Your task to perform on an android device: turn on showing notifications on the lock screen Image 0: 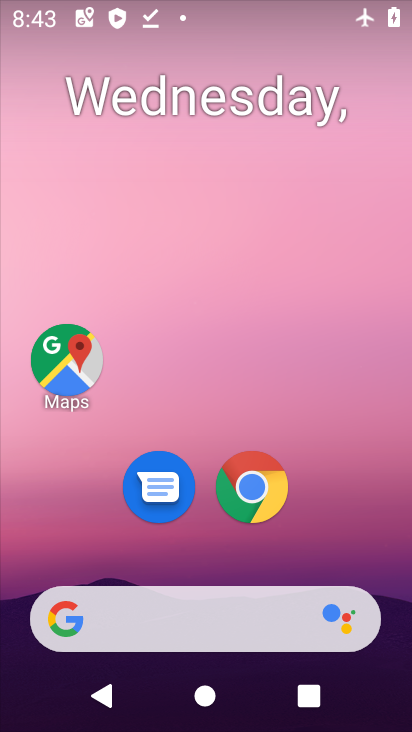
Step 0: drag from (254, 684) to (303, 70)
Your task to perform on an android device: turn on showing notifications on the lock screen Image 1: 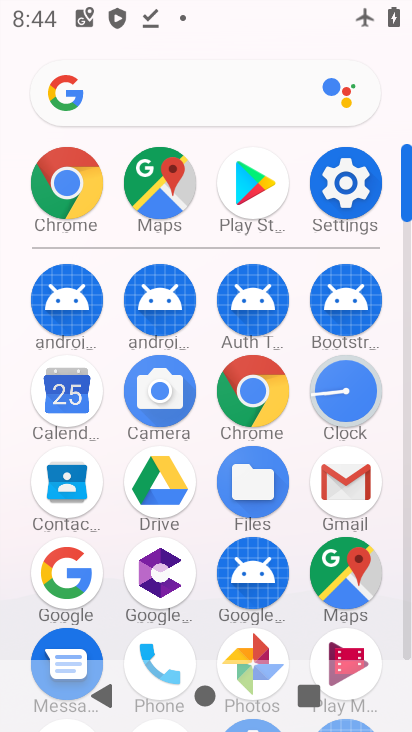
Step 1: click (338, 200)
Your task to perform on an android device: turn on showing notifications on the lock screen Image 2: 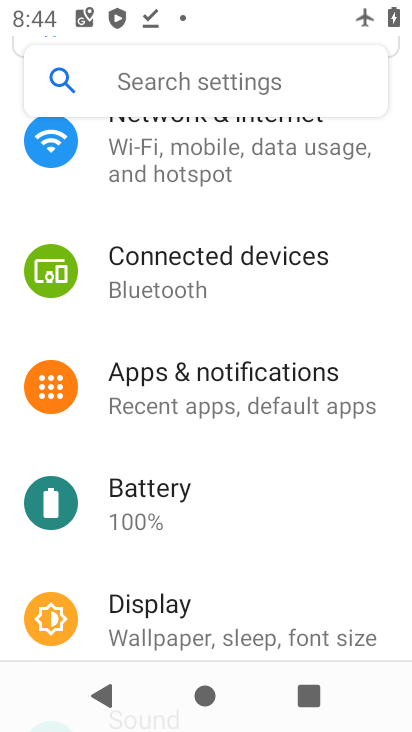
Step 2: click (338, 200)
Your task to perform on an android device: turn on showing notifications on the lock screen Image 3: 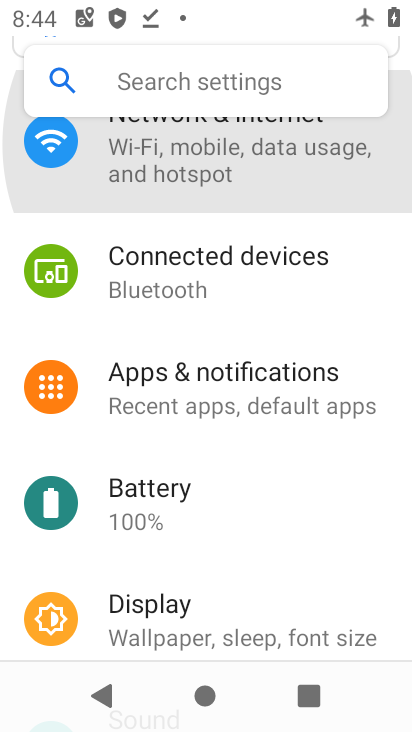
Step 3: click (340, 187)
Your task to perform on an android device: turn on showing notifications on the lock screen Image 4: 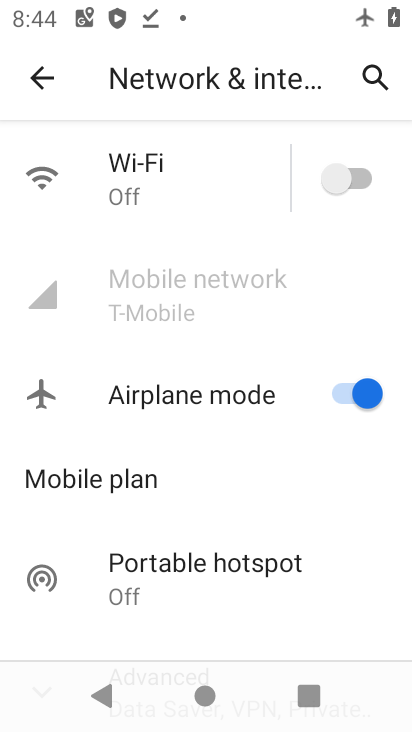
Step 4: click (38, 74)
Your task to perform on an android device: turn on showing notifications on the lock screen Image 5: 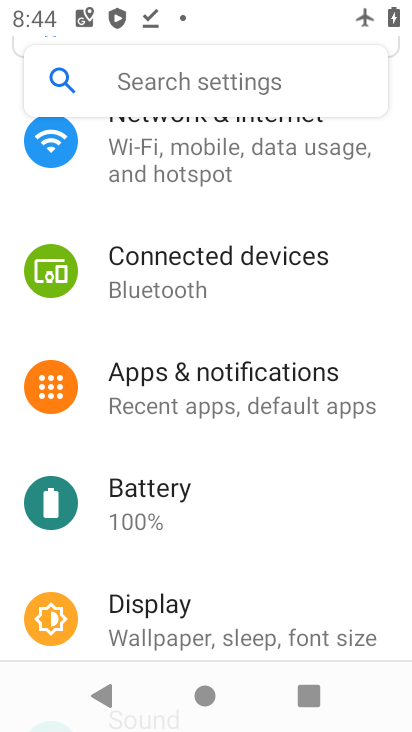
Step 5: drag from (239, 566) to (187, 263)
Your task to perform on an android device: turn on showing notifications on the lock screen Image 6: 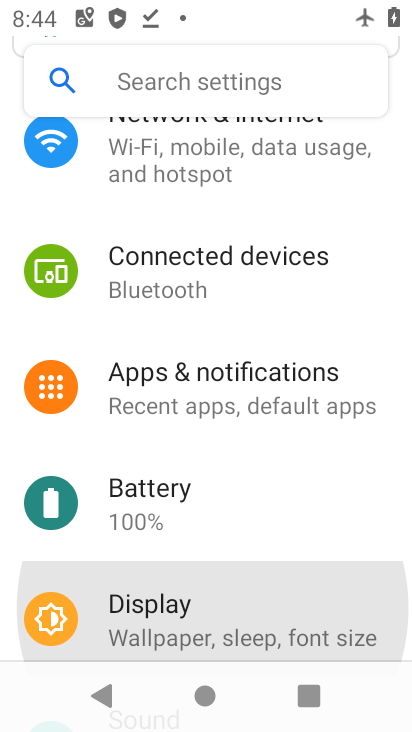
Step 6: drag from (255, 631) to (249, 248)
Your task to perform on an android device: turn on showing notifications on the lock screen Image 7: 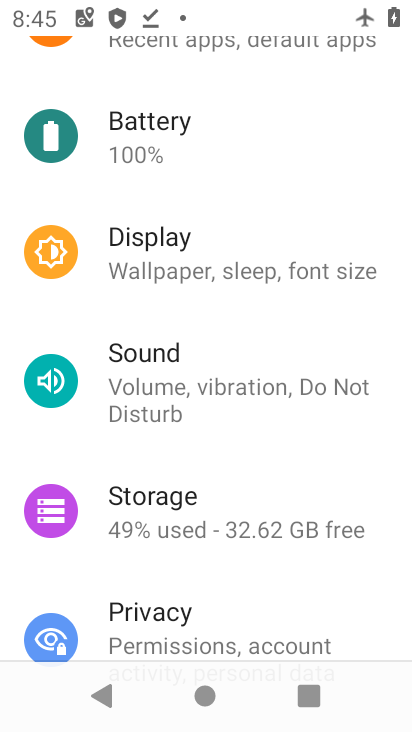
Step 7: drag from (210, 239) to (216, 630)
Your task to perform on an android device: turn on showing notifications on the lock screen Image 8: 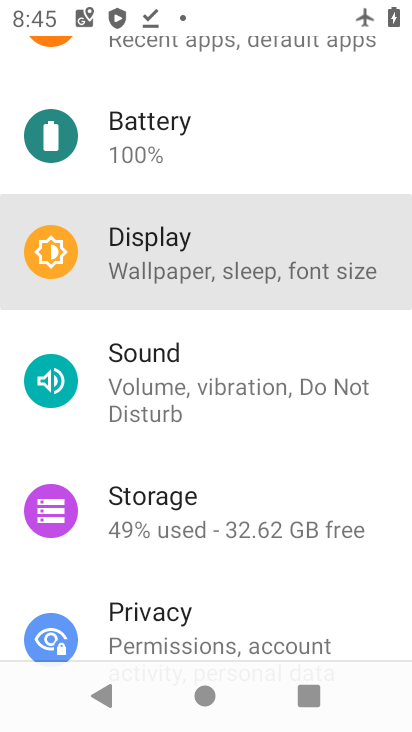
Step 8: drag from (212, 320) to (185, 616)
Your task to perform on an android device: turn on showing notifications on the lock screen Image 9: 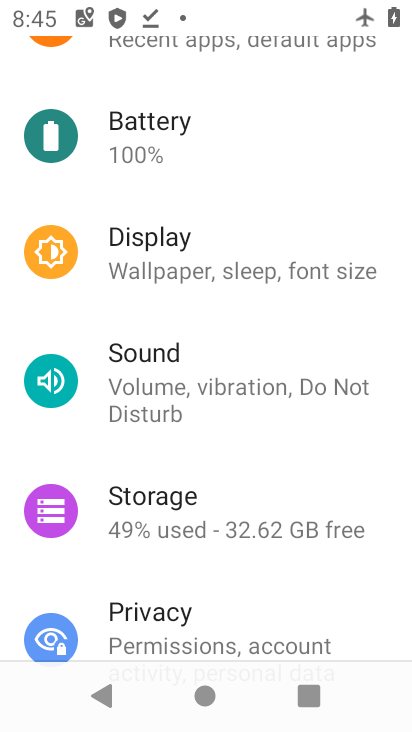
Step 9: drag from (197, 214) to (179, 600)
Your task to perform on an android device: turn on showing notifications on the lock screen Image 10: 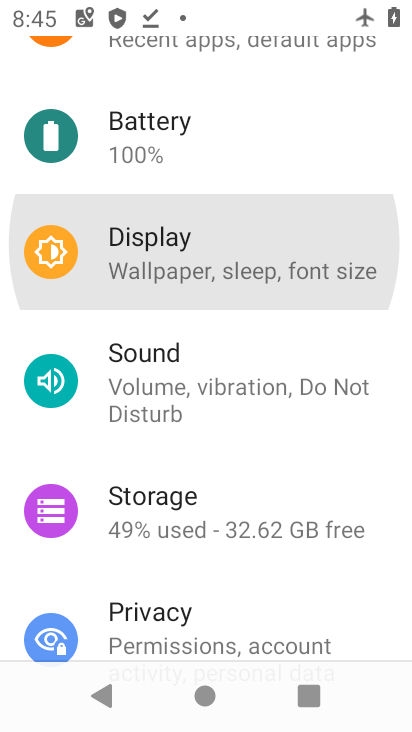
Step 10: drag from (224, 335) to (229, 597)
Your task to perform on an android device: turn on showing notifications on the lock screen Image 11: 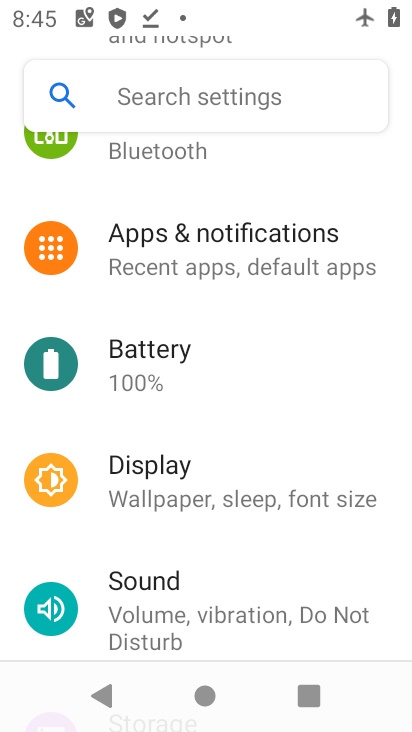
Step 11: drag from (199, 311) to (226, 567)
Your task to perform on an android device: turn on showing notifications on the lock screen Image 12: 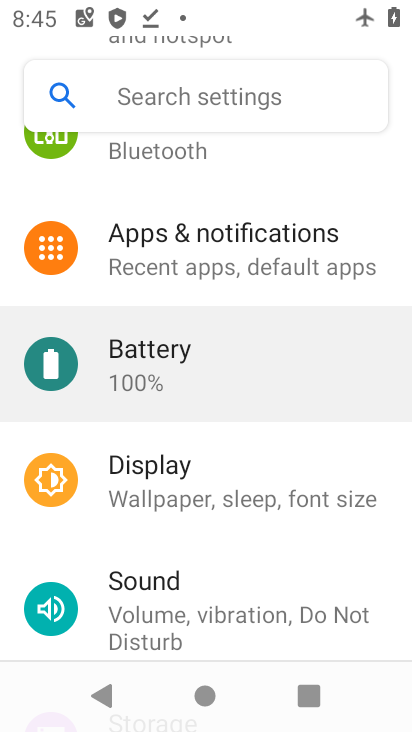
Step 12: drag from (167, 226) to (180, 660)
Your task to perform on an android device: turn on showing notifications on the lock screen Image 13: 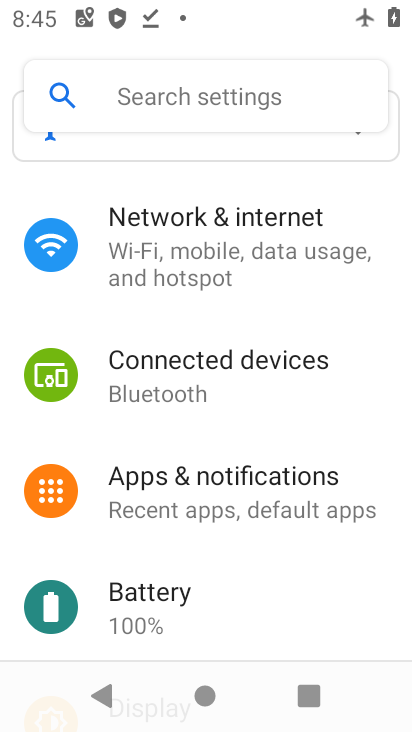
Step 13: click (191, 493)
Your task to perform on an android device: turn on showing notifications on the lock screen Image 14: 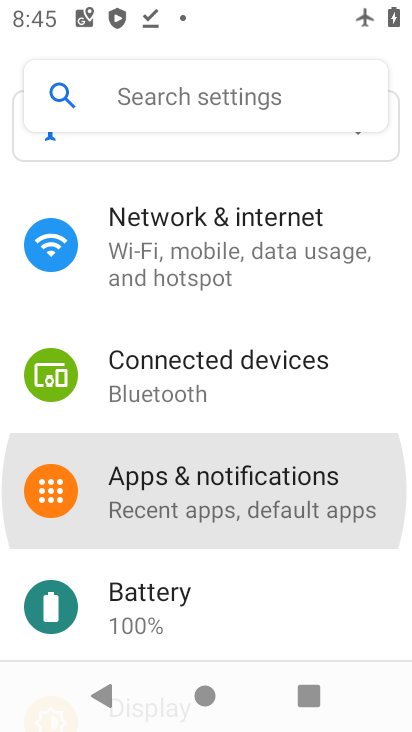
Step 14: click (191, 494)
Your task to perform on an android device: turn on showing notifications on the lock screen Image 15: 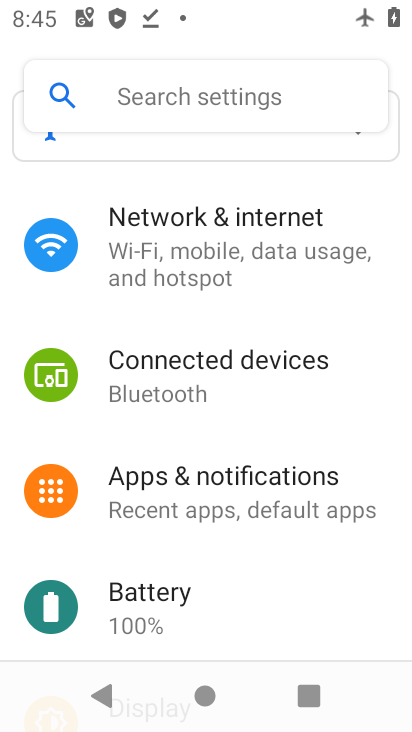
Step 15: click (194, 493)
Your task to perform on an android device: turn on showing notifications on the lock screen Image 16: 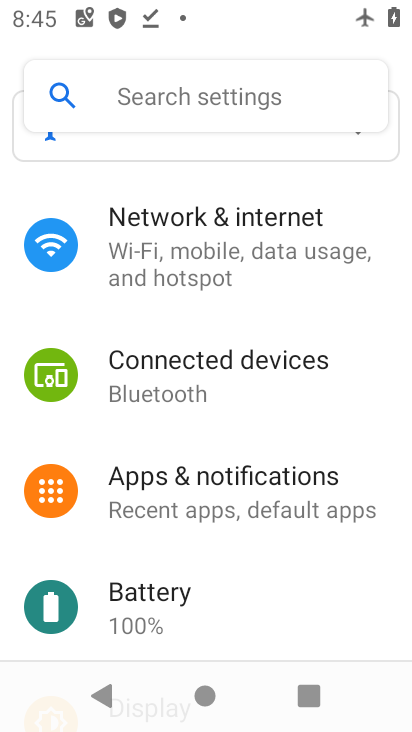
Step 16: click (194, 493)
Your task to perform on an android device: turn on showing notifications on the lock screen Image 17: 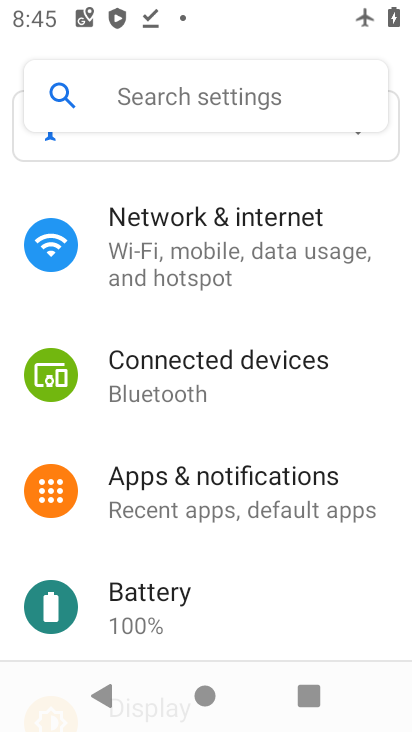
Step 17: click (196, 492)
Your task to perform on an android device: turn on showing notifications on the lock screen Image 18: 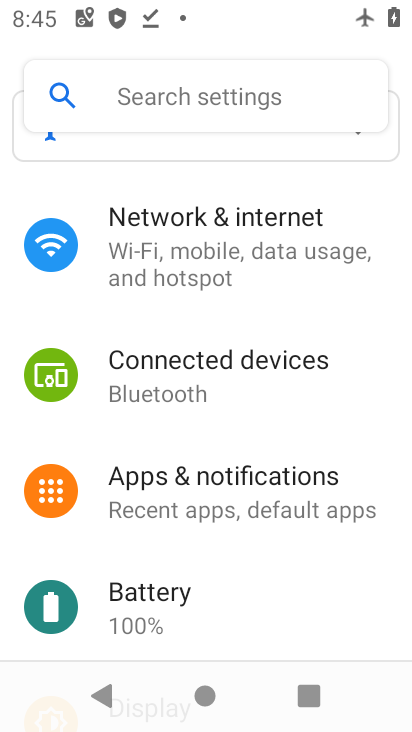
Step 18: click (197, 488)
Your task to perform on an android device: turn on showing notifications on the lock screen Image 19: 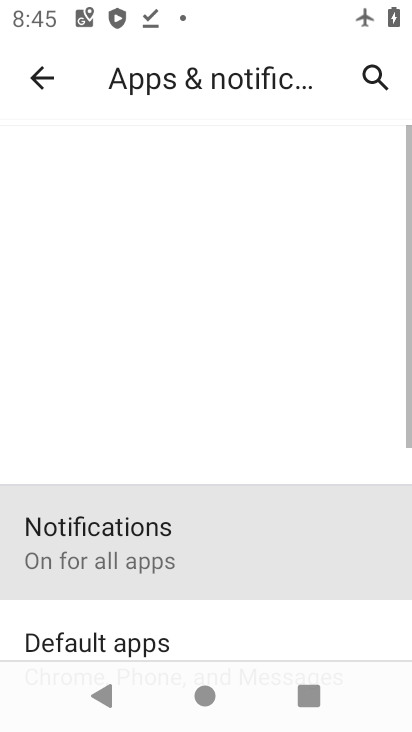
Step 19: click (198, 486)
Your task to perform on an android device: turn on showing notifications on the lock screen Image 20: 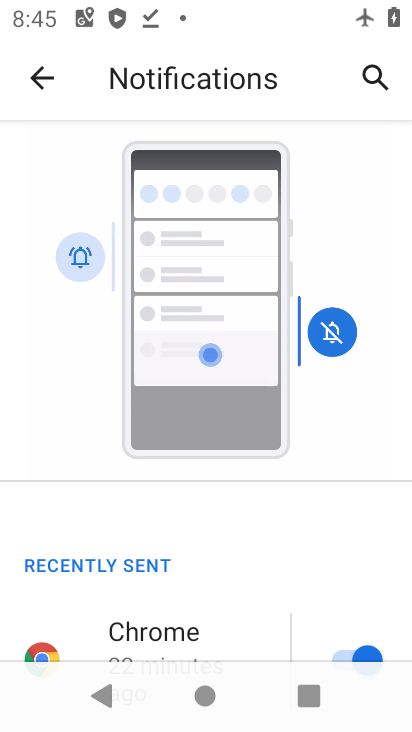
Step 20: drag from (209, 507) to (156, 71)
Your task to perform on an android device: turn on showing notifications on the lock screen Image 21: 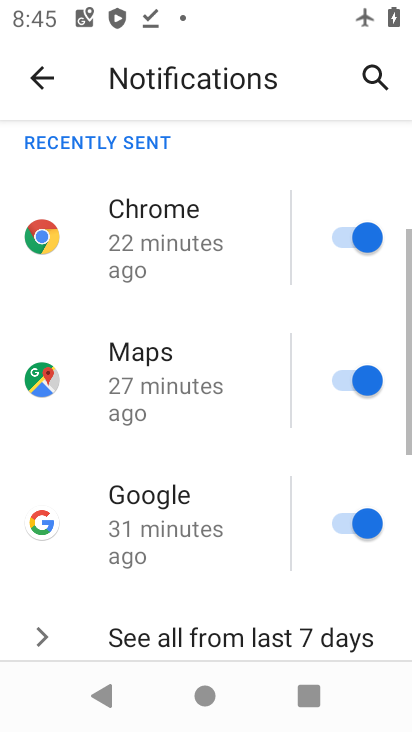
Step 21: drag from (189, 414) to (125, 102)
Your task to perform on an android device: turn on showing notifications on the lock screen Image 22: 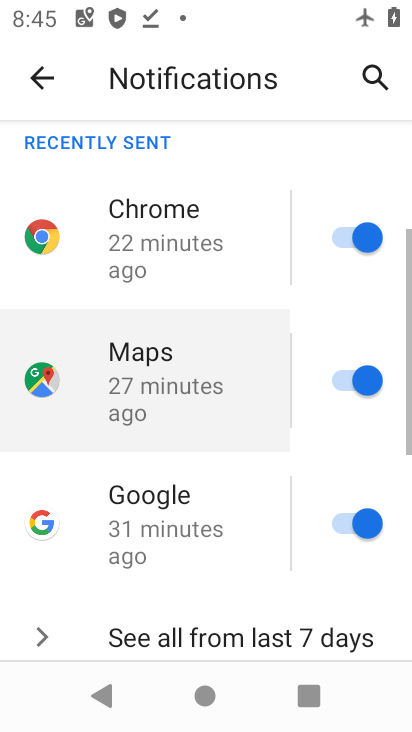
Step 22: drag from (169, 400) to (151, 121)
Your task to perform on an android device: turn on showing notifications on the lock screen Image 23: 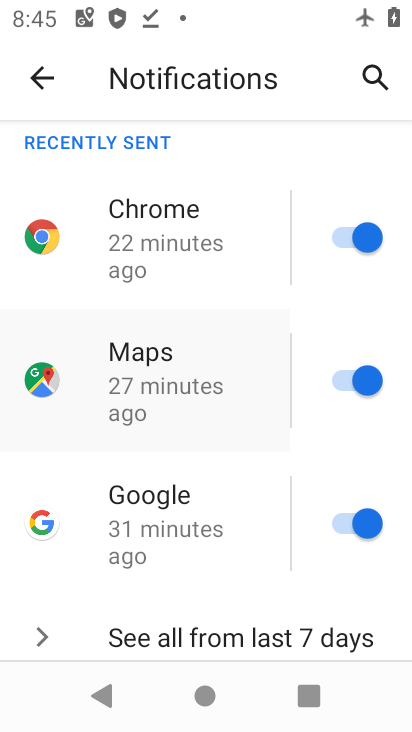
Step 23: drag from (165, 451) to (162, 111)
Your task to perform on an android device: turn on showing notifications on the lock screen Image 24: 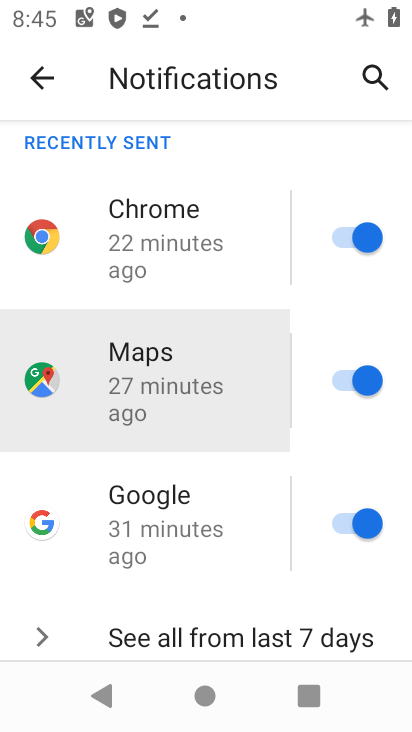
Step 24: drag from (211, 442) to (211, 89)
Your task to perform on an android device: turn on showing notifications on the lock screen Image 25: 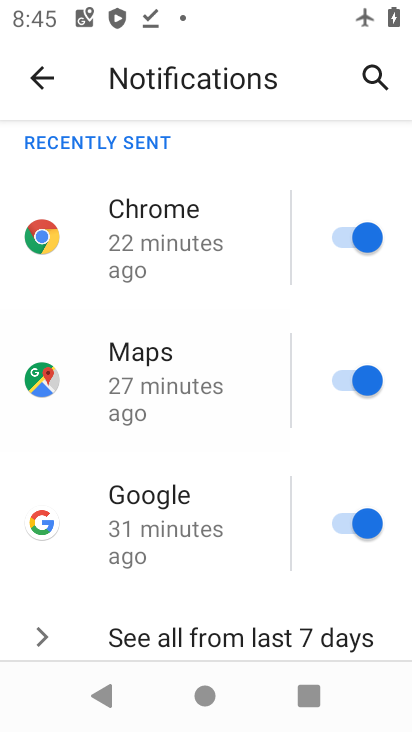
Step 25: drag from (246, 513) to (245, 115)
Your task to perform on an android device: turn on showing notifications on the lock screen Image 26: 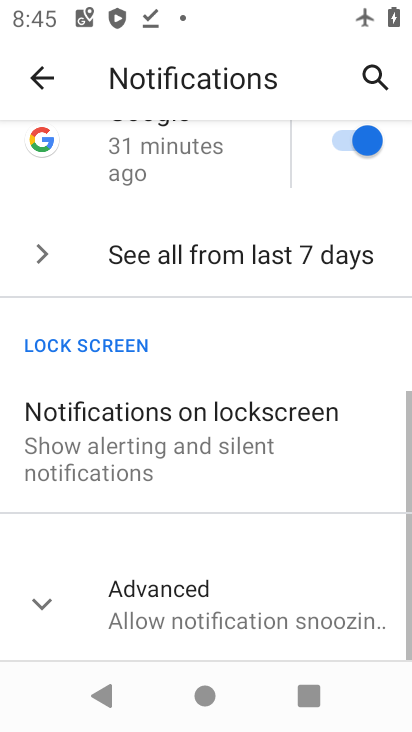
Step 26: drag from (214, 497) to (209, 39)
Your task to perform on an android device: turn on showing notifications on the lock screen Image 27: 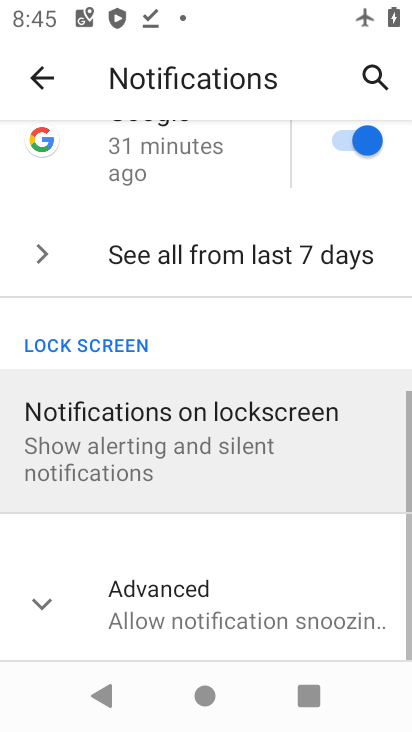
Step 27: drag from (167, 456) to (167, 106)
Your task to perform on an android device: turn on showing notifications on the lock screen Image 28: 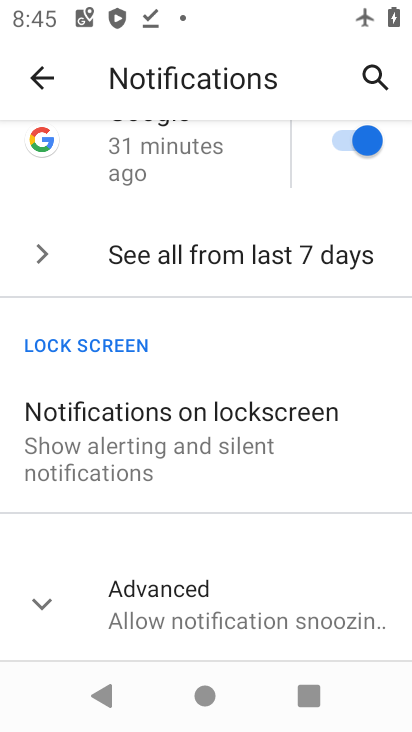
Step 28: drag from (193, 510) to (197, 110)
Your task to perform on an android device: turn on showing notifications on the lock screen Image 29: 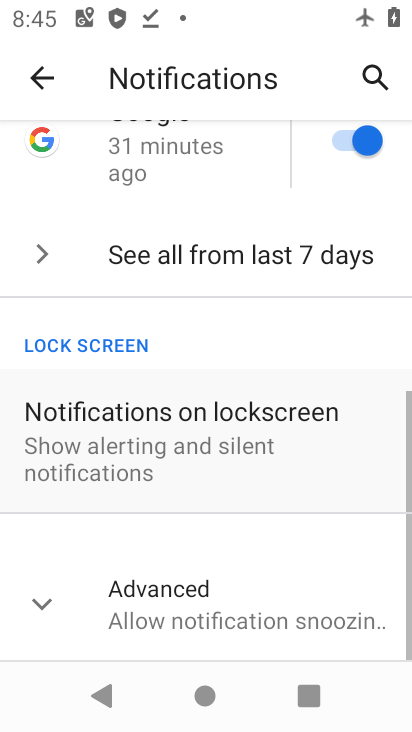
Step 29: drag from (167, 479) to (167, 142)
Your task to perform on an android device: turn on showing notifications on the lock screen Image 30: 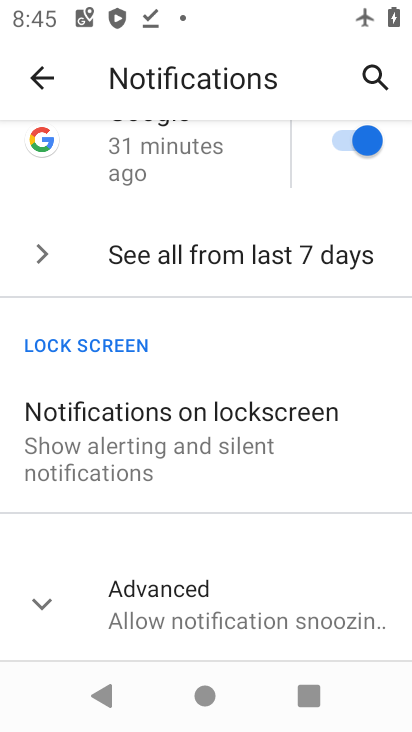
Step 30: click (138, 435)
Your task to perform on an android device: turn on showing notifications on the lock screen Image 31: 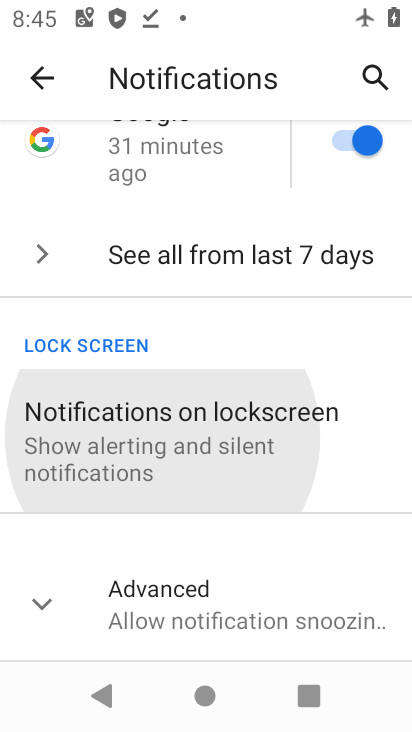
Step 31: click (145, 435)
Your task to perform on an android device: turn on showing notifications on the lock screen Image 32: 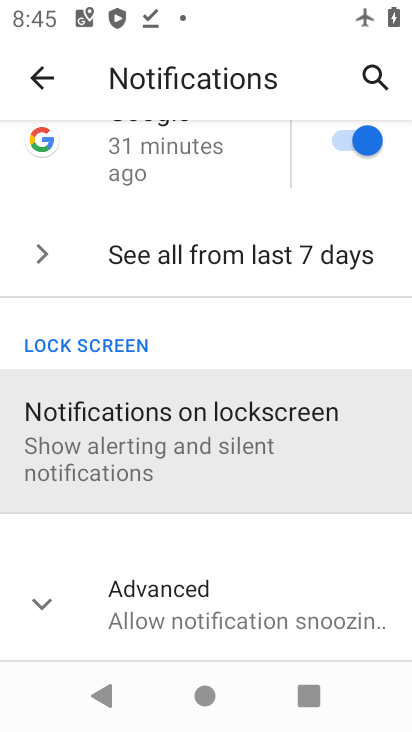
Step 32: click (146, 434)
Your task to perform on an android device: turn on showing notifications on the lock screen Image 33: 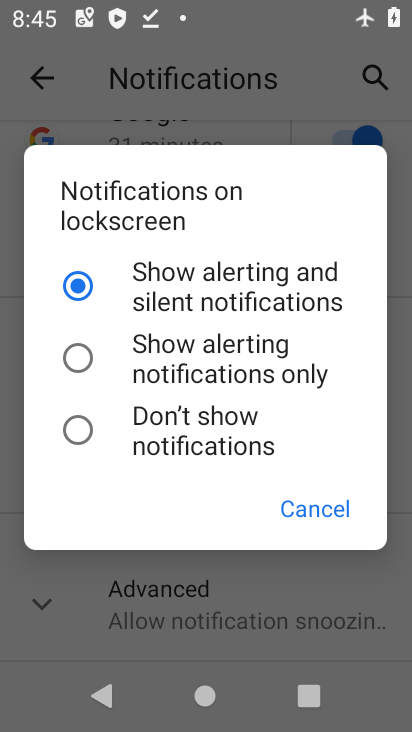
Step 33: click (151, 437)
Your task to perform on an android device: turn on showing notifications on the lock screen Image 34: 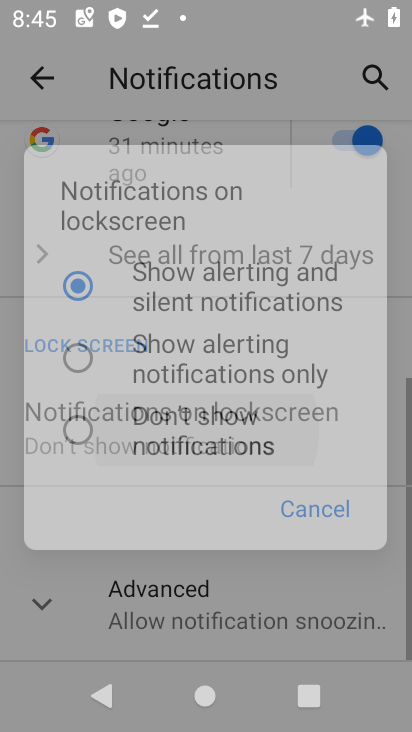
Step 34: click (159, 410)
Your task to perform on an android device: turn on showing notifications on the lock screen Image 35: 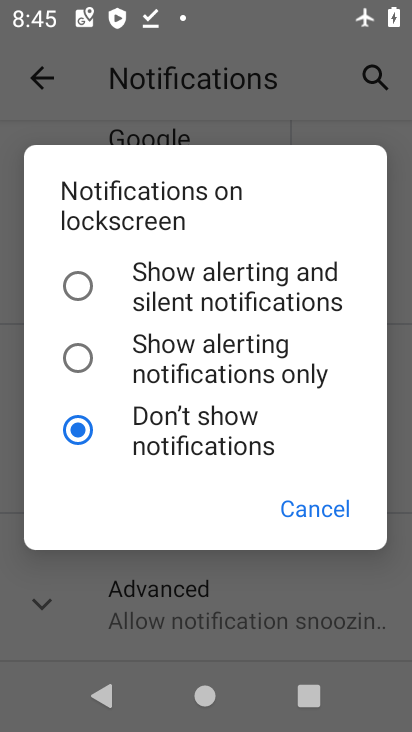
Step 35: click (298, 495)
Your task to perform on an android device: turn on showing notifications on the lock screen Image 36: 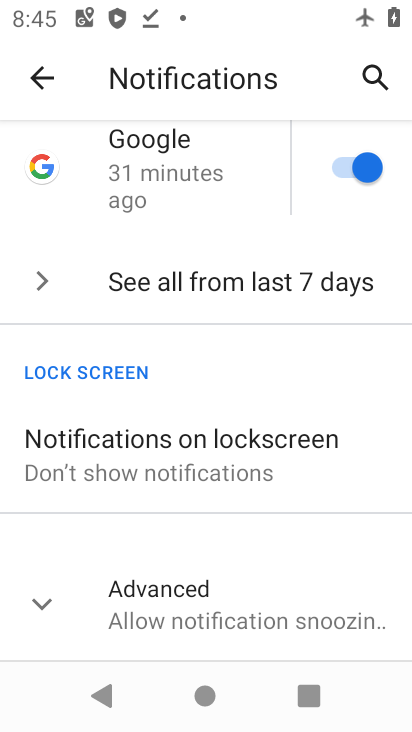
Step 36: task complete